Your task to perform on an android device: open chrome privacy settings Image 0: 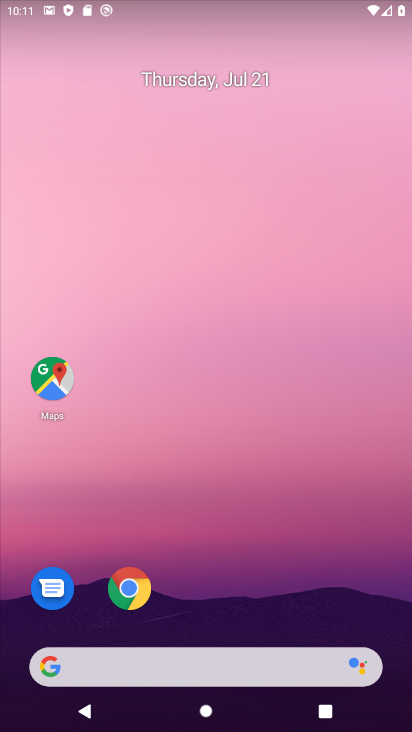
Step 0: drag from (163, 596) to (246, 188)
Your task to perform on an android device: open chrome privacy settings Image 1: 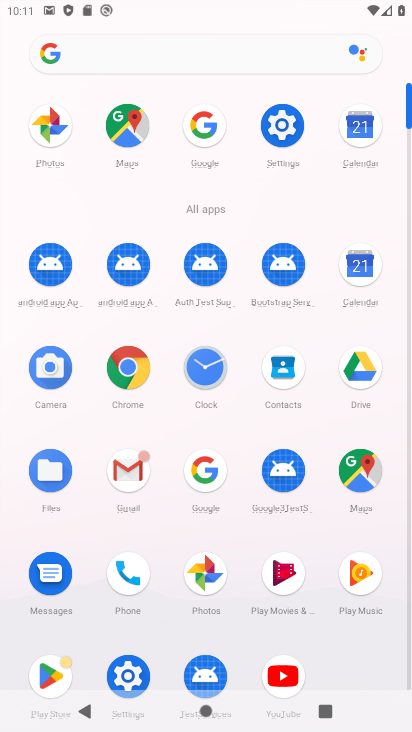
Step 1: click (127, 667)
Your task to perform on an android device: open chrome privacy settings Image 2: 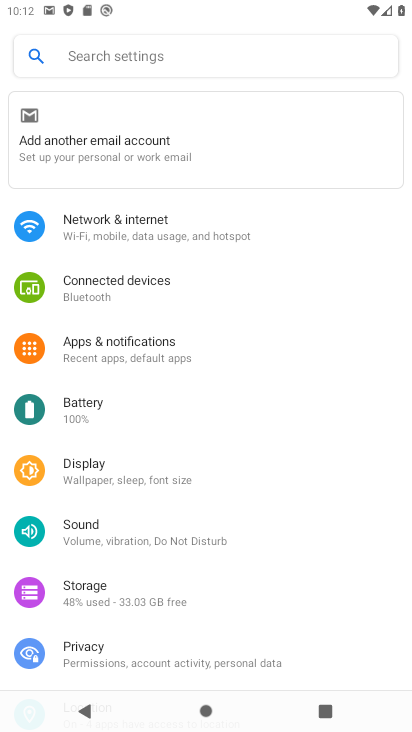
Step 2: press home button
Your task to perform on an android device: open chrome privacy settings Image 3: 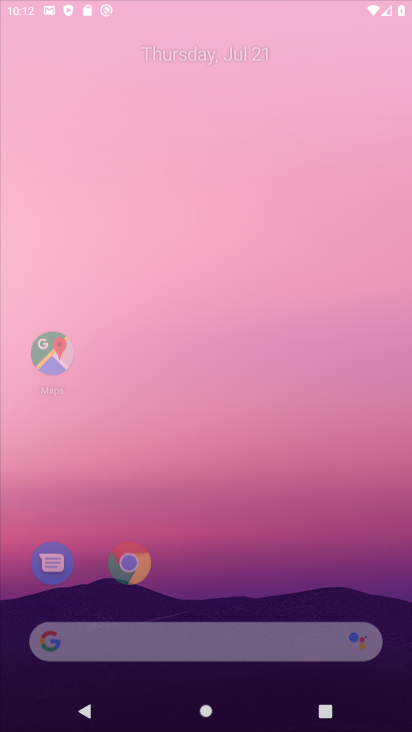
Step 3: drag from (149, 590) to (275, 151)
Your task to perform on an android device: open chrome privacy settings Image 4: 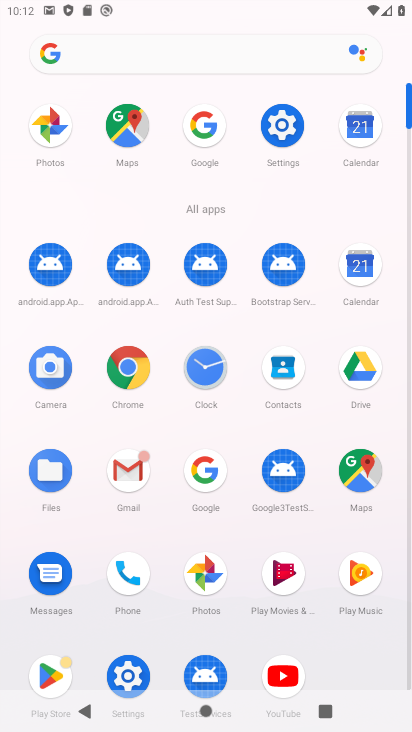
Step 4: click (129, 360)
Your task to perform on an android device: open chrome privacy settings Image 5: 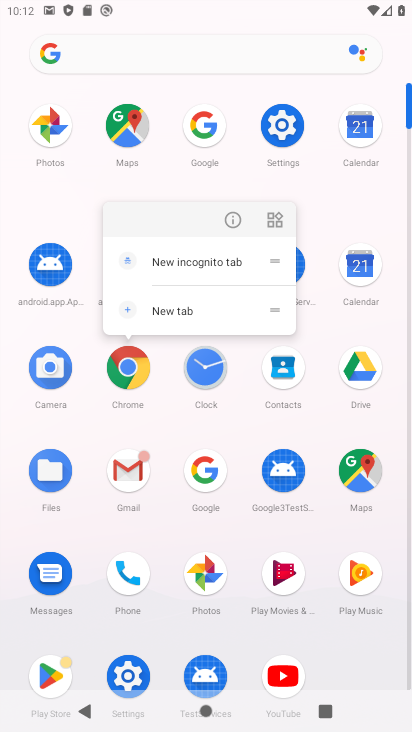
Step 5: click (220, 220)
Your task to perform on an android device: open chrome privacy settings Image 6: 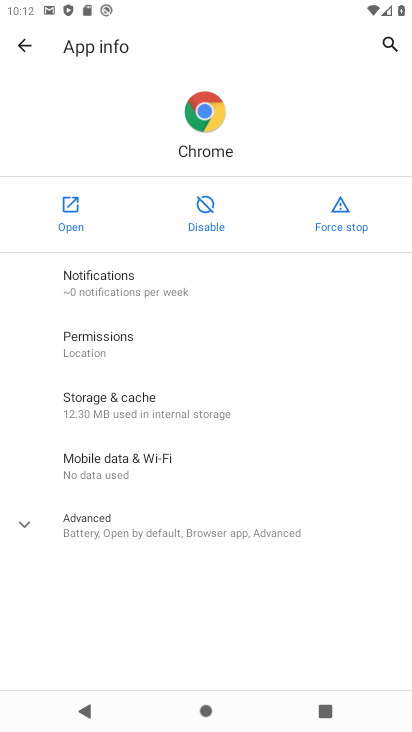
Step 6: click (77, 209)
Your task to perform on an android device: open chrome privacy settings Image 7: 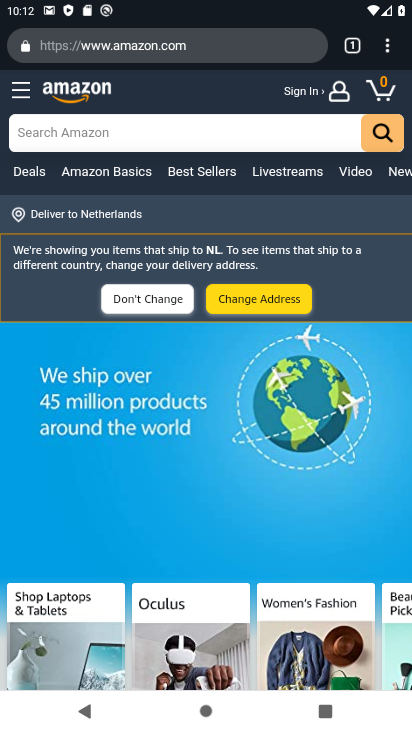
Step 7: drag from (394, 43) to (255, 549)
Your task to perform on an android device: open chrome privacy settings Image 8: 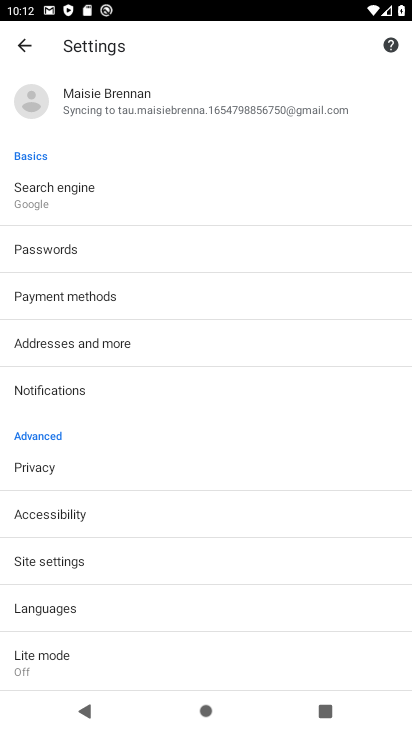
Step 8: click (58, 488)
Your task to perform on an android device: open chrome privacy settings Image 9: 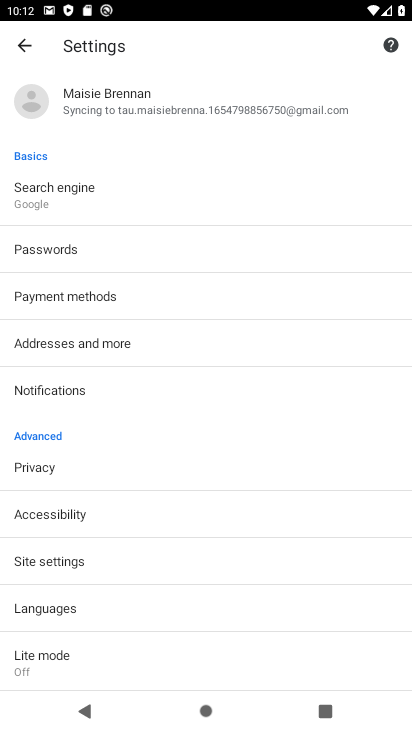
Step 9: click (48, 483)
Your task to perform on an android device: open chrome privacy settings Image 10: 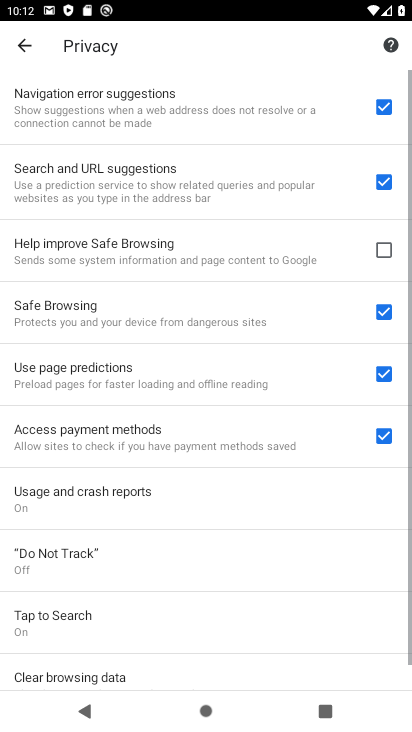
Step 10: task complete